Your task to perform on an android device: show emergency info Image 0: 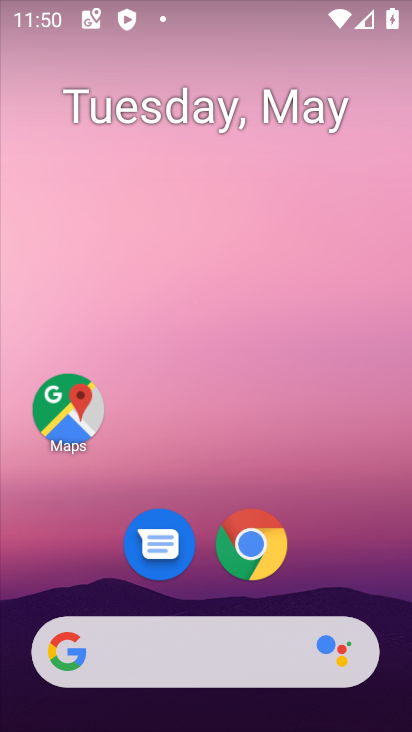
Step 0: drag from (385, 585) to (205, 50)
Your task to perform on an android device: show emergency info Image 1: 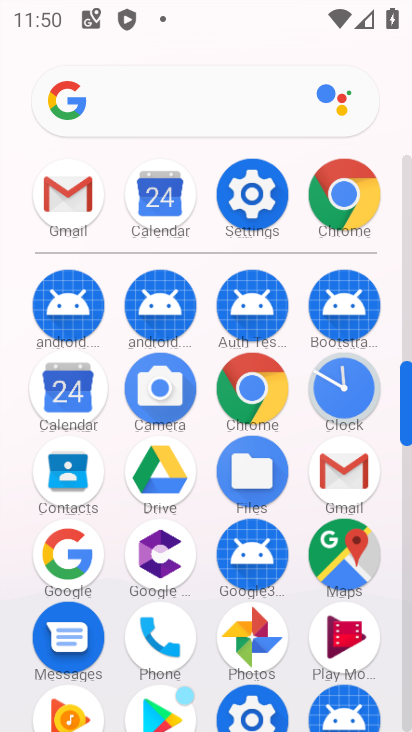
Step 1: click (251, 197)
Your task to perform on an android device: show emergency info Image 2: 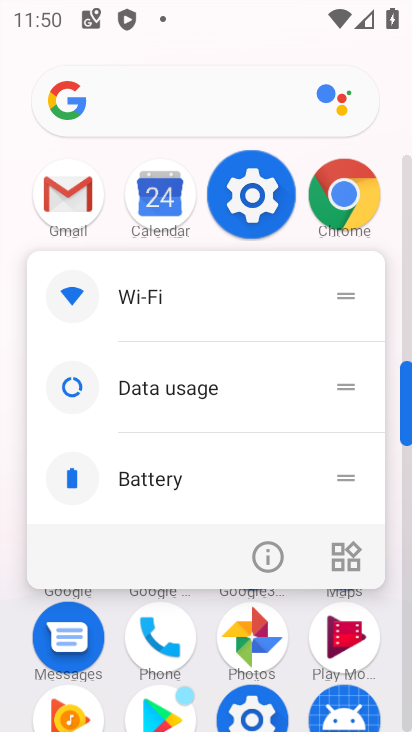
Step 2: click (251, 197)
Your task to perform on an android device: show emergency info Image 3: 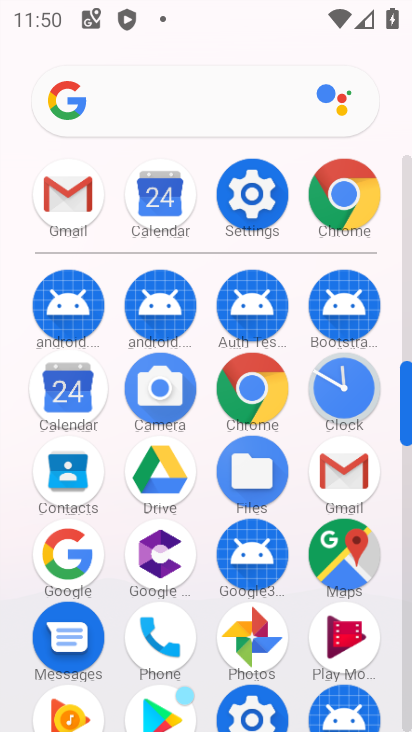
Step 3: click (251, 197)
Your task to perform on an android device: show emergency info Image 4: 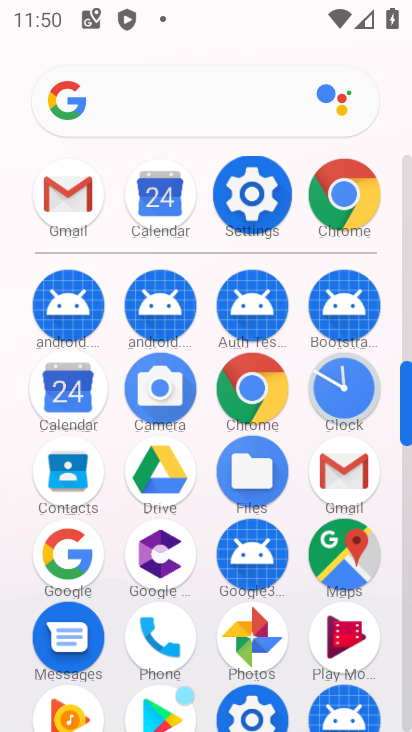
Step 4: click (251, 197)
Your task to perform on an android device: show emergency info Image 5: 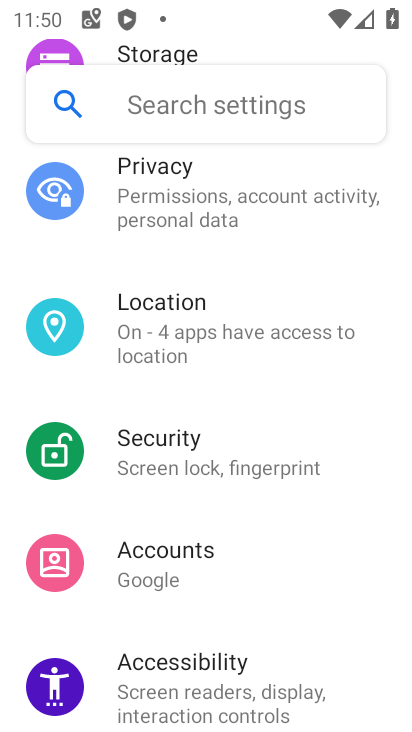
Step 5: drag from (195, 546) to (179, 129)
Your task to perform on an android device: show emergency info Image 6: 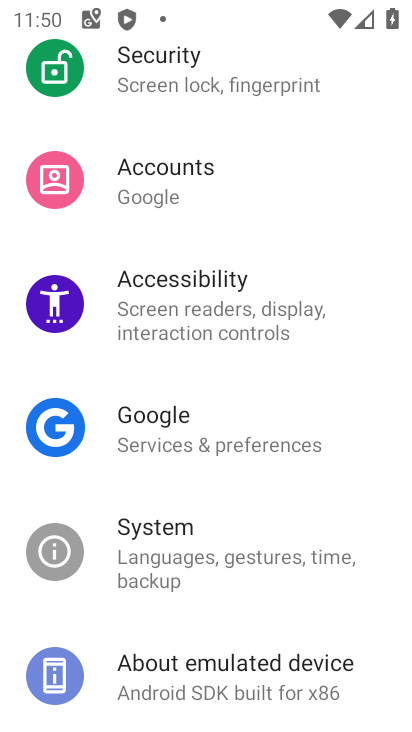
Step 6: drag from (247, 532) to (181, 80)
Your task to perform on an android device: show emergency info Image 7: 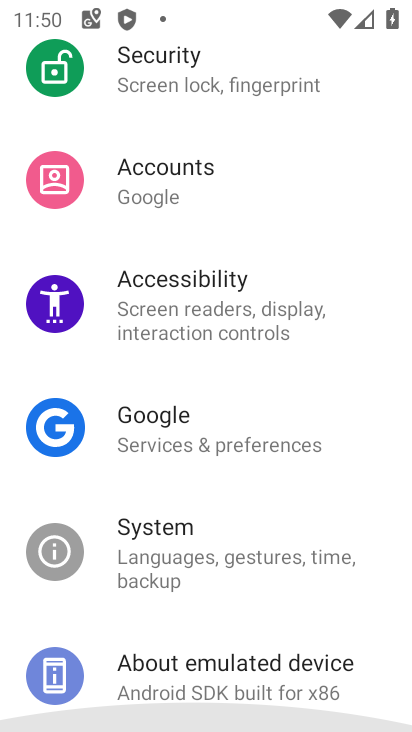
Step 7: drag from (168, 300) to (168, 154)
Your task to perform on an android device: show emergency info Image 8: 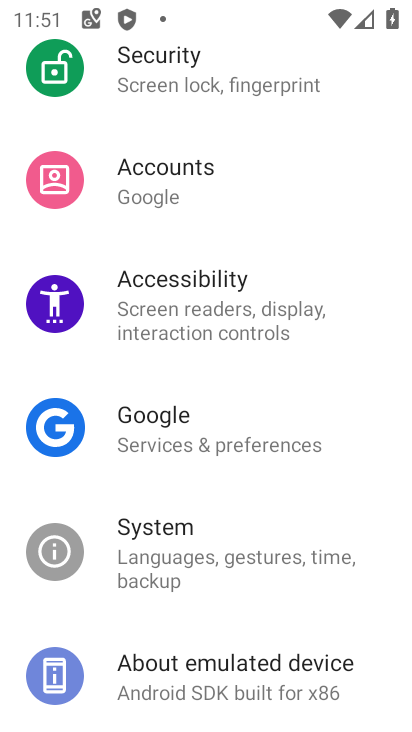
Step 8: click (173, 679)
Your task to perform on an android device: show emergency info Image 9: 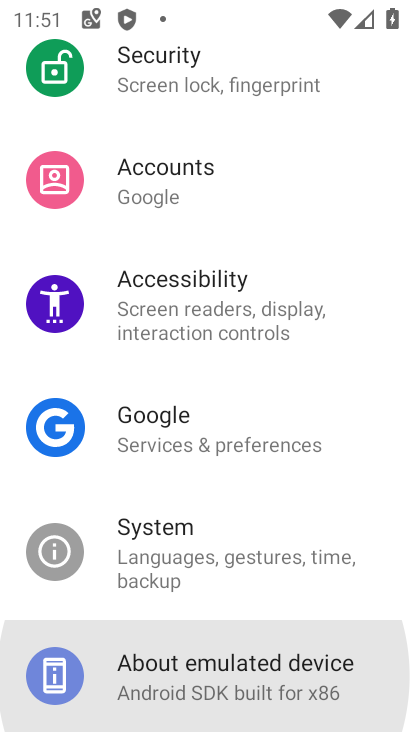
Step 9: click (173, 679)
Your task to perform on an android device: show emergency info Image 10: 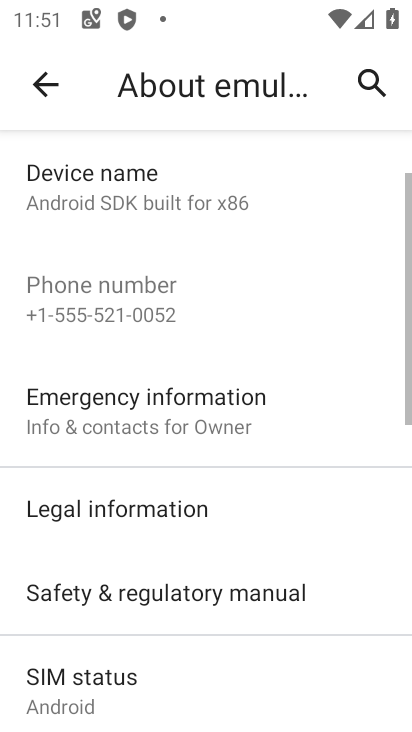
Step 10: drag from (153, 474) to (192, 142)
Your task to perform on an android device: show emergency info Image 11: 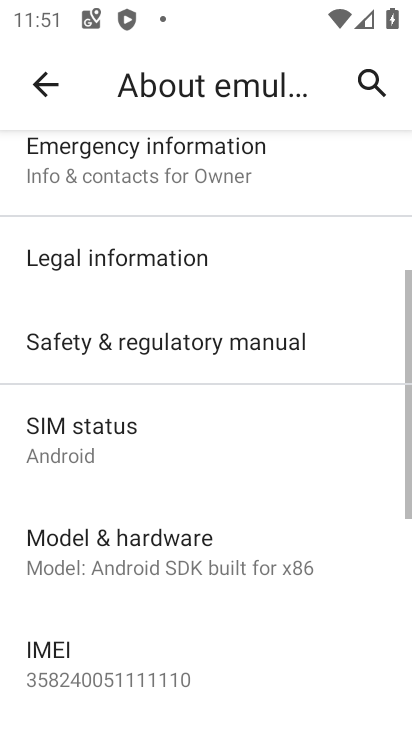
Step 11: drag from (216, 466) to (251, 121)
Your task to perform on an android device: show emergency info Image 12: 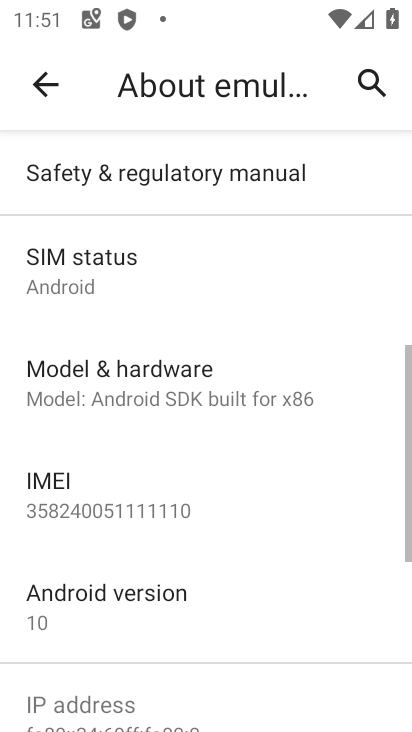
Step 12: drag from (274, 539) to (294, 158)
Your task to perform on an android device: show emergency info Image 13: 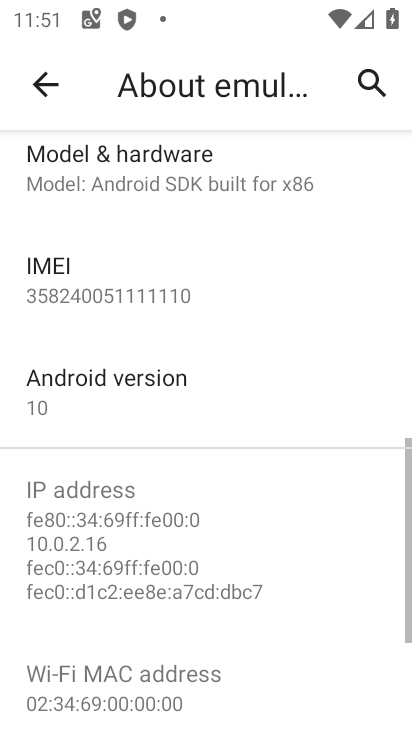
Step 13: click (121, 194)
Your task to perform on an android device: show emergency info Image 14: 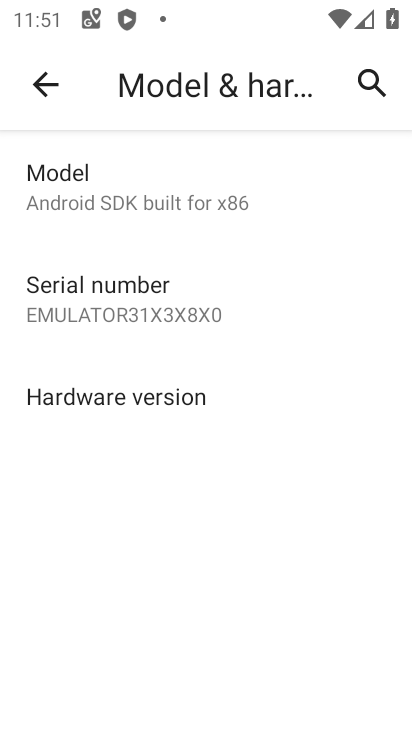
Step 14: task complete